Your task to perform on an android device: Go to accessibility settings Image 0: 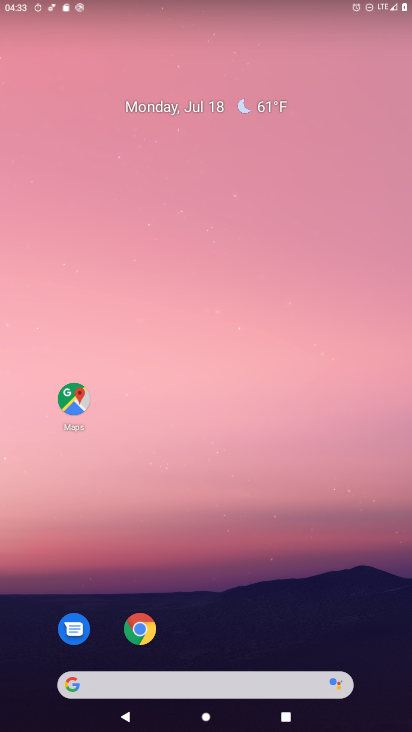
Step 0: drag from (169, 681) to (246, 175)
Your task to perform on an android device: Go to accessibility settings Image 1: 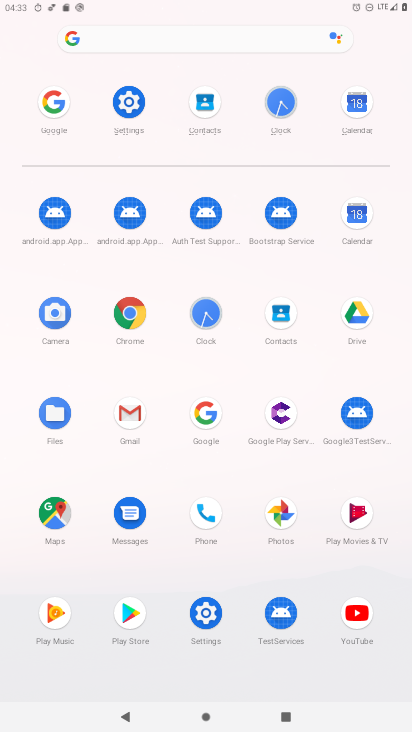
Step 1: click (127, 101)
Your task to perform on an android device: Go to accessibility settings Image 2: 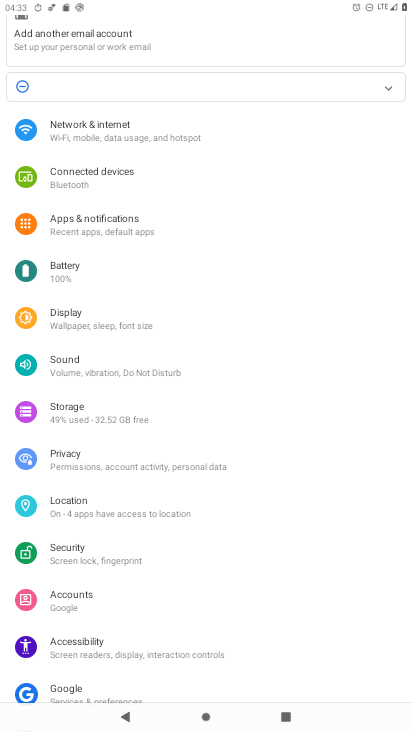
Step 2: click (89, 650)
Your task to perform on an android device: Go to accessibility settings Image 3: 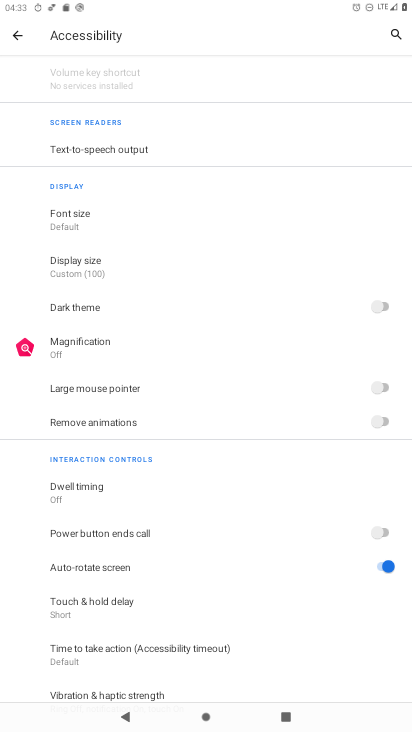
Step 3: task complete